Your task to perform on an android device: Open calendar and show me the second week of next month Image 0: 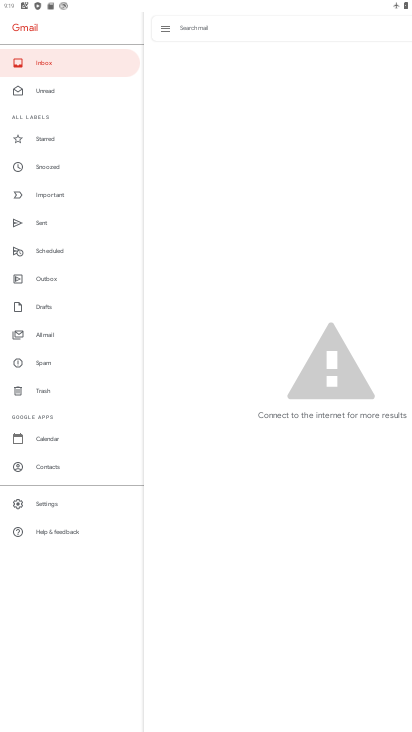
Step 0: press home button
Your task to perform on an android device: Open calendar and show me the second week of next month Image 1: 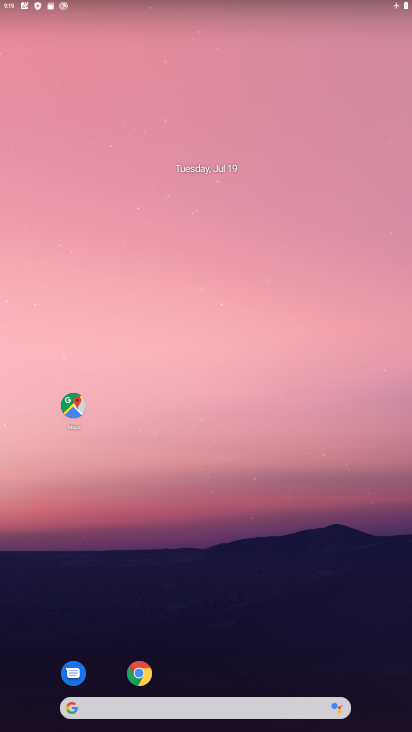
Step 1: drag from (198, 653) to (235, 121)
Your task to perform on an android device: Open calendar and show me the second week of next month Image 2: 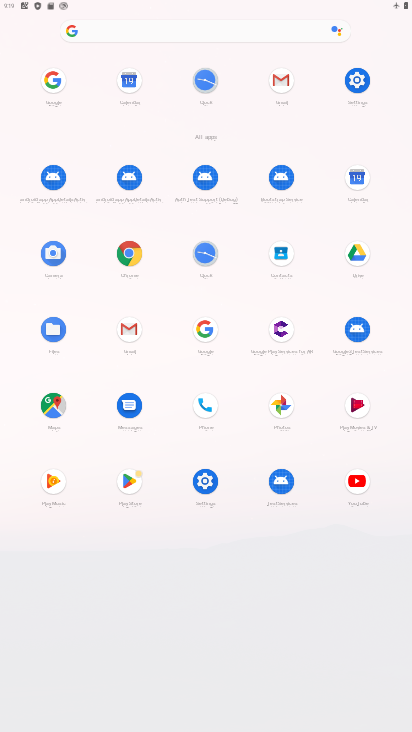
Step 2: click (351, 179)
Your task to perform on an android device: Open calendar and show me the second week of next month Image 3: 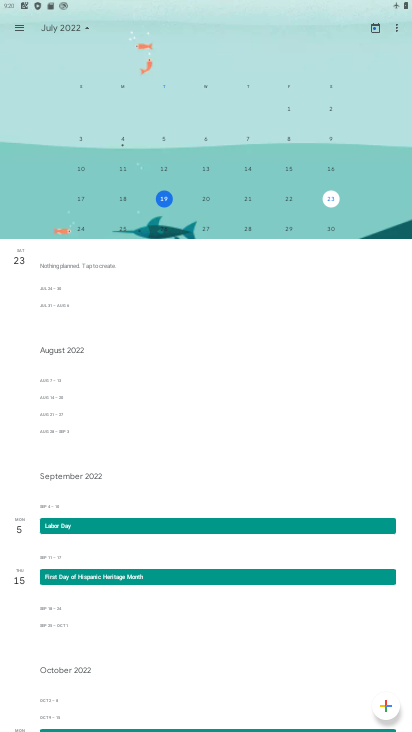
Step 3: drag from (302, 150) to (58, 136)
Your task to perform on an android device: Open calendar and show me the second week of next month Image 4: 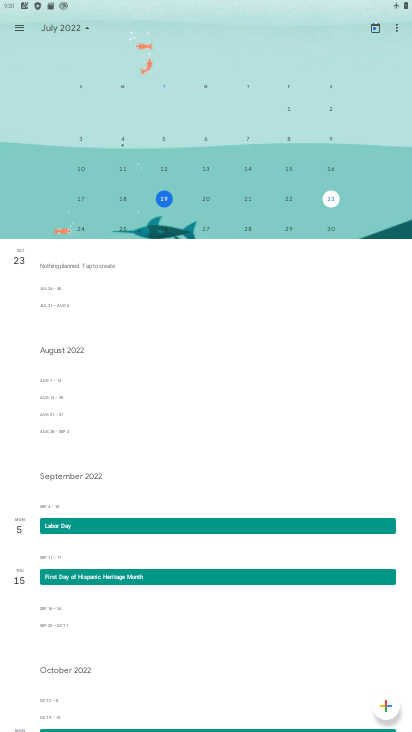
Step 4: drag from (332, 147) to (55, 128)
Your task to perform on an android device: Open calendar and show me the second week of next month Image 5: 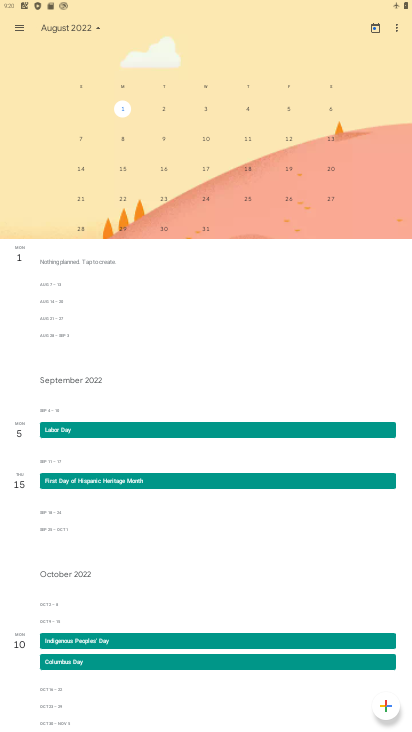
Step 5: click (79, 137)
Your task to perform on an android device: Open calendar and show me the second week of next month Image 6: 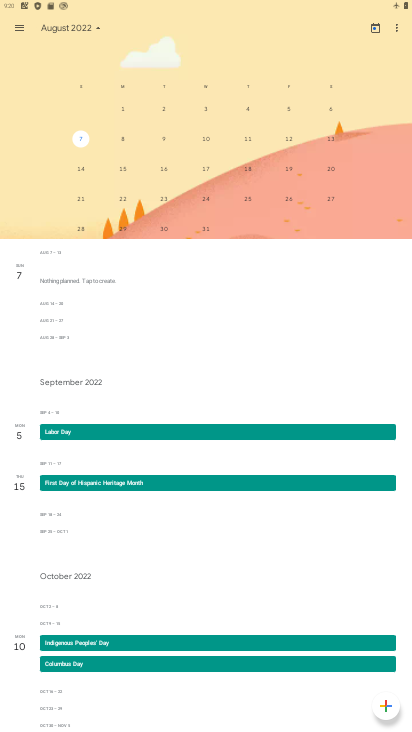
Step 6: task complete